Your task to perform on an android device: Go to CNN.com Image 0: 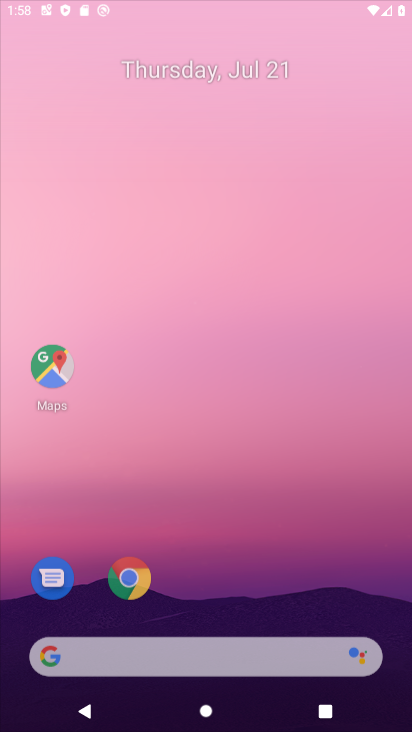
Step 0: click (260, 116)
Your task to perform on an android device: Go to CNN.com Image 1: 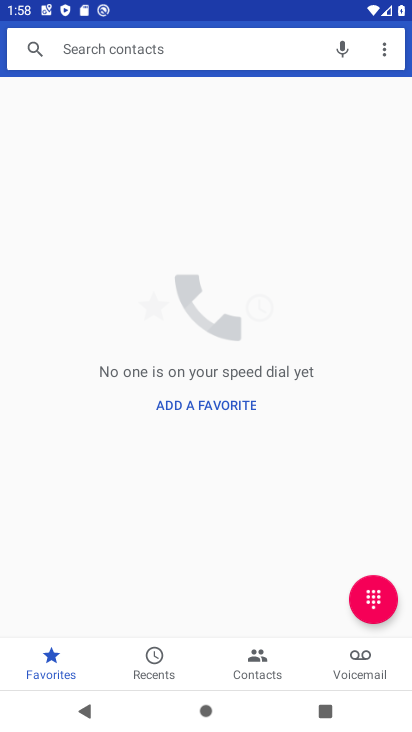
Step 1: press home button
Your task to perform on an android device: Go to CNN.com Image 2: 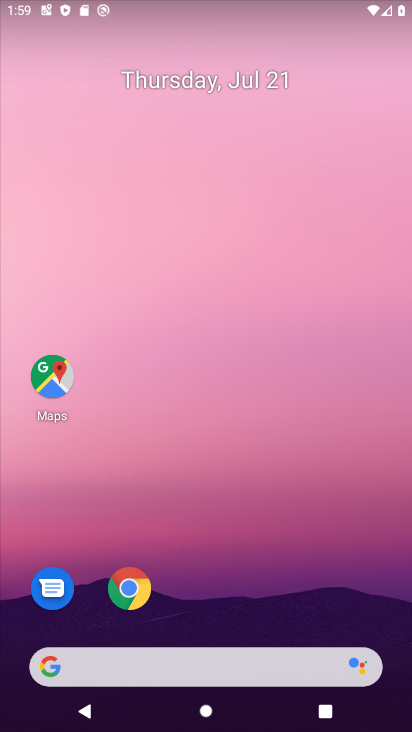
Step 2: drag from (213, 575) to (287, 4)
Your task to perform on an android device: Go to CNN.com Image 3: 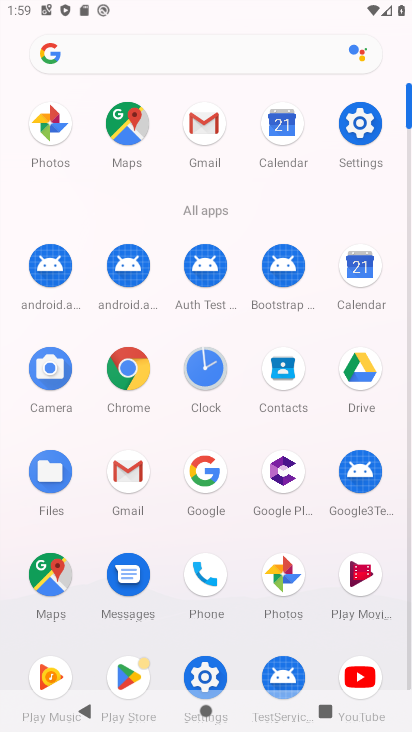
Step 3: click (124, 51)
Your task to perform on an android device: Go to CNN.com Image 4: 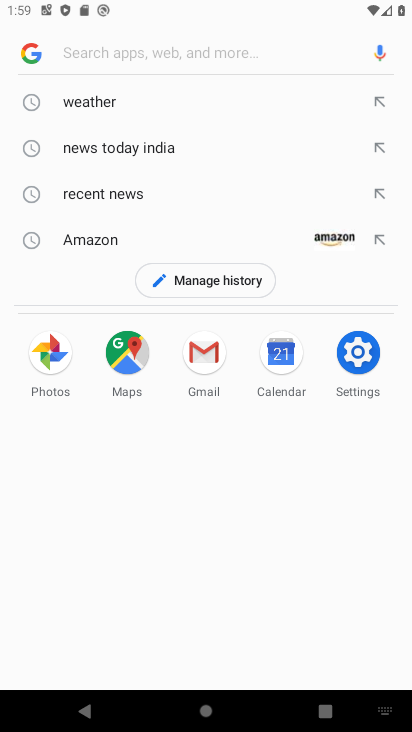
Step 4: type "cnn.com"
Your task to perform on an android device: Go to CNN.com Image 5: 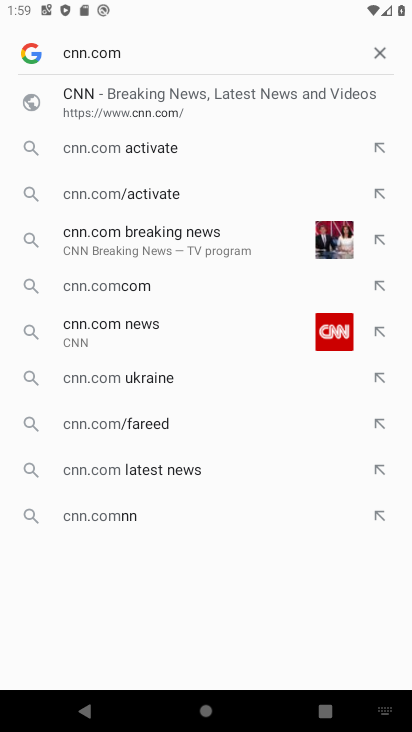
Step 5: click (93, 101)
Your task to perform on an android device: Go to CNN.com Image 6: 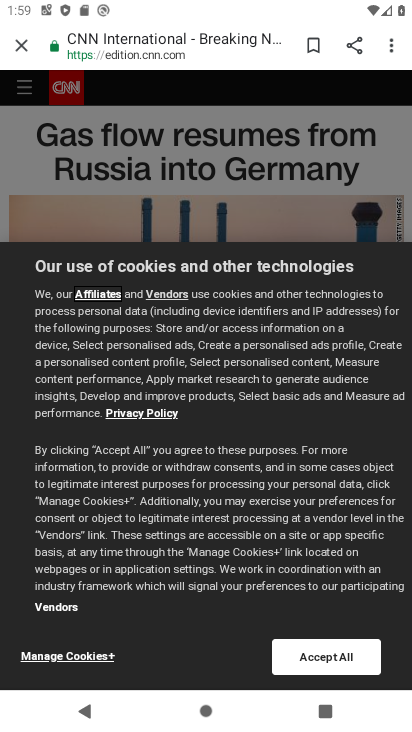
Step 6: task complete